Your task to perform on an android device: turn on improve location accuracy Image 0: 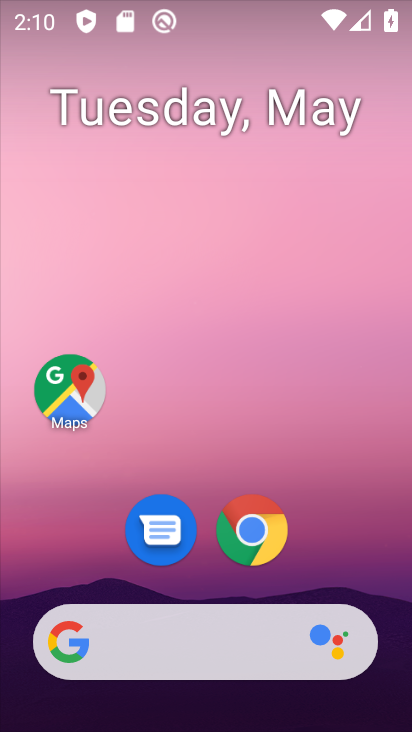
Step 0: drag from (201, 559) to (201, 193)
Your task to perform on an android device: turn on improve location accuracy Image 1: 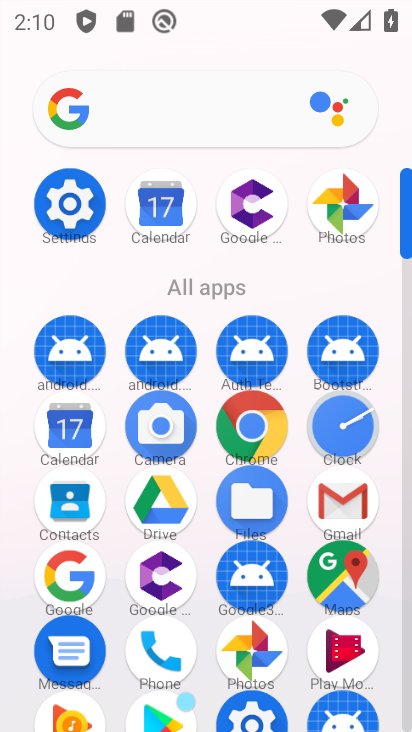
Step 1: click (59, 198)
Your task to perform on an android device: turn on improve location accuracy Image 2: 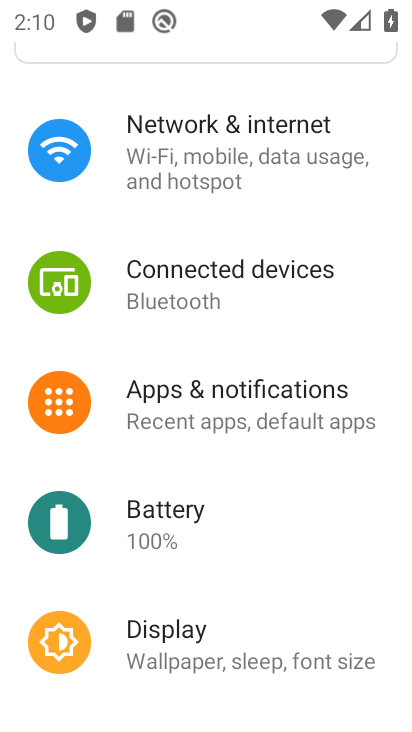
Step 2: drag from (244, 640) to (269, 366)
Your task to perform on an android device: turn on improve location accuracy Image 3: 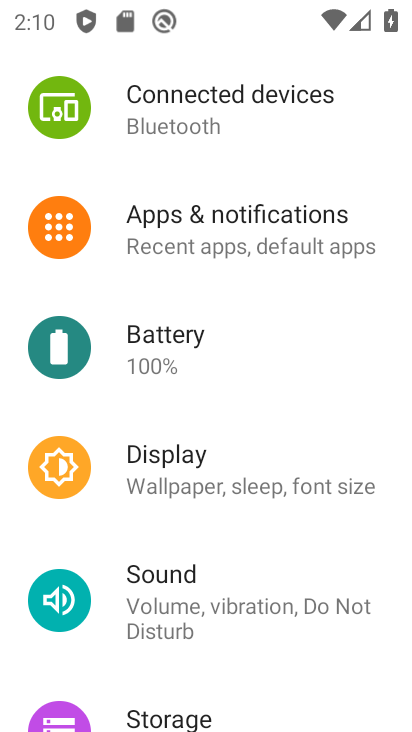
Step 3: drag from (198, 624) to (262, 396)
Your task to perform on an android device: turn on improve location accuracy Image 4: 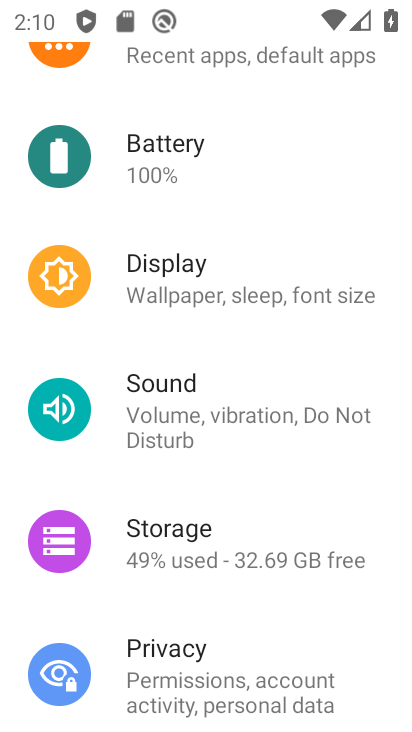
Step 4: drag from (251, 579) to (285, 343)
Your task to perform on an android device: turn on improve location accuracy Image 5: 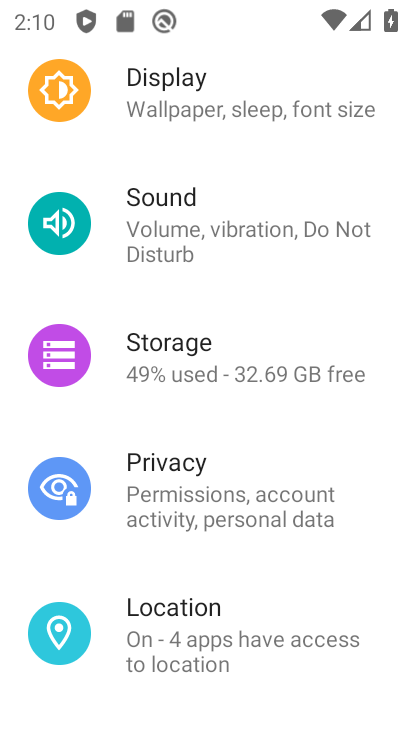
Step 5: click (199, 613)
Your task to perform on an android device: turn on improve location accuracy Image 6: 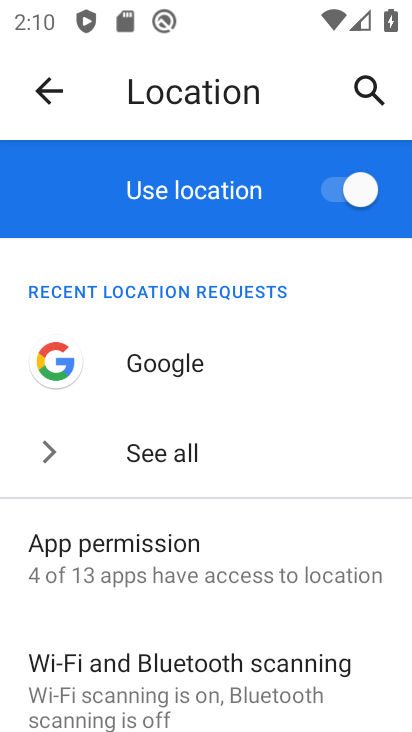
Step 6: drag from (203, 621) to (273, 375)
Your task to perform on an android device: turn on improve location accuracy Image 7: 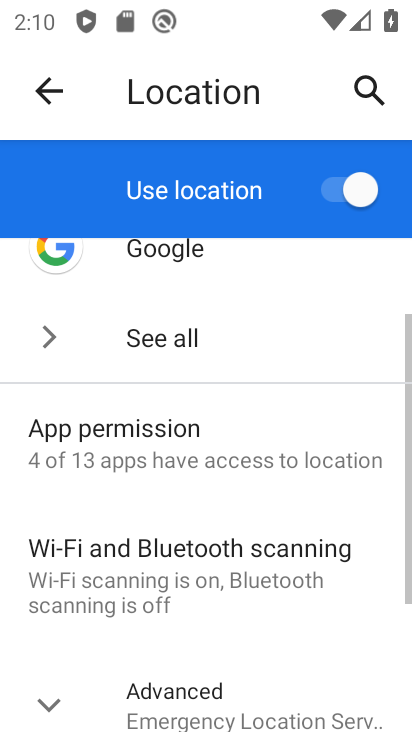
Step 7: drag from (216, 666) to (242, 377)
Your task to perform on an android device: turn on improve location accuracy Image 8: 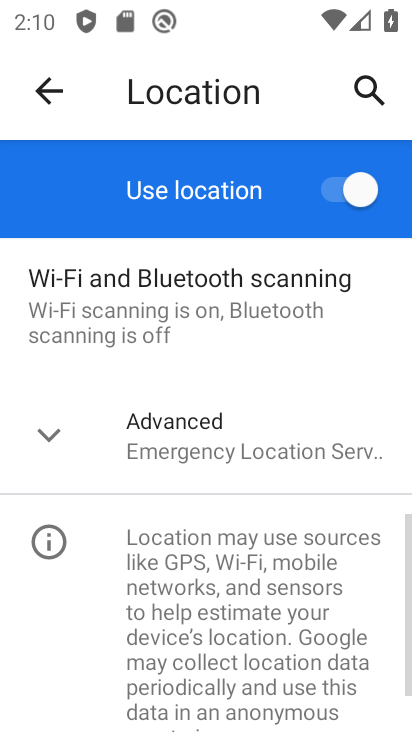
Step 8: drag from (206, 596) to (219, 474)
Your task to perform on an android device: turn on improve location accuracy Image 9: 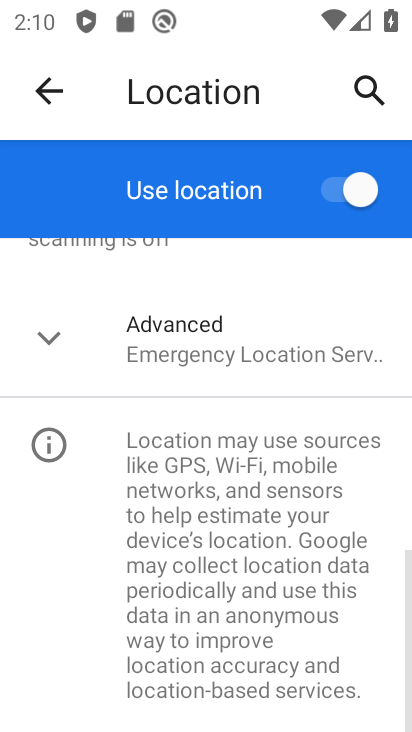
Step 9: click (208, 448)
Your task to perform on an android device: turn on improve location accuracy Image 10: 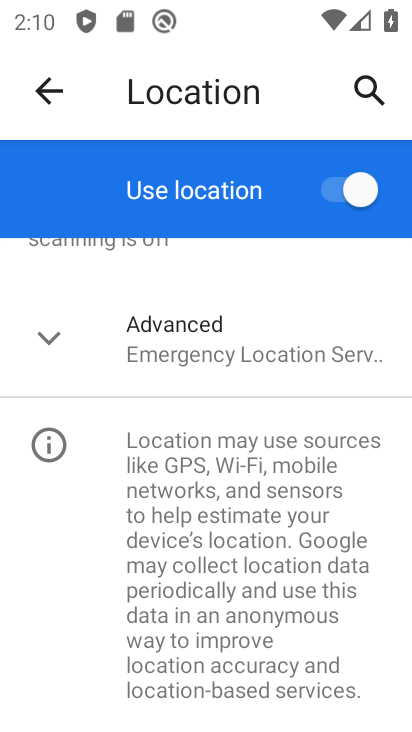
Step 10: click (200, 362)
Your task to perform on an android device: turn on improve location accuracy Image 11: 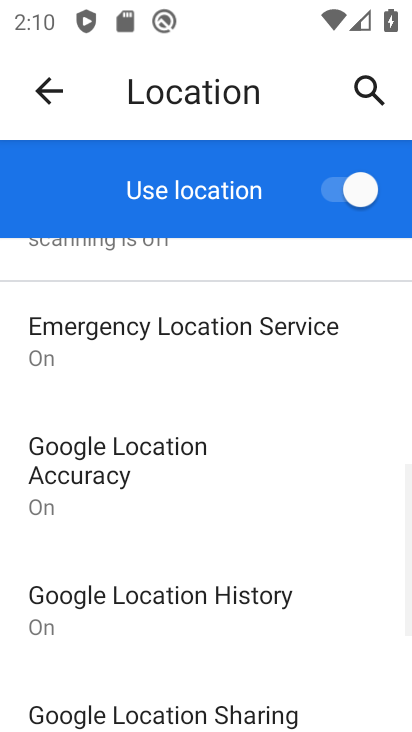
Step 11: drag from (227, 632) to (257, 483)
Your task to perform on an android device: turn on improve location accuracy Image 12: 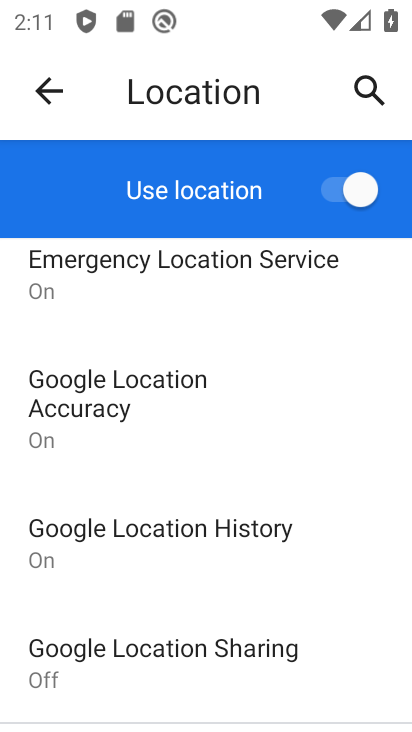
Step 12: click (191, 414)
Your task to perform on an android device: turn on improve location accuracy Image 13: 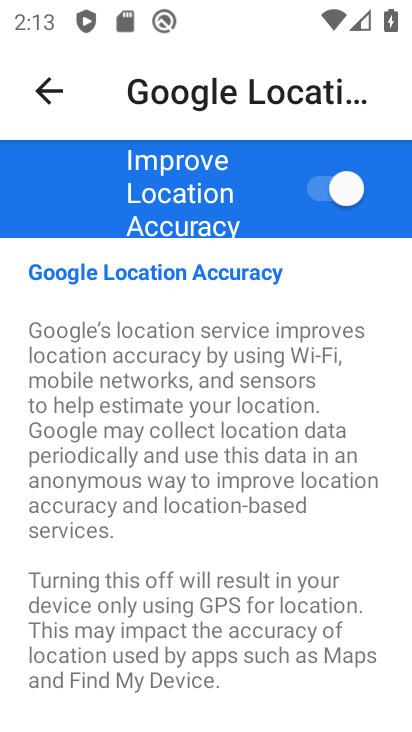
Step 13: task complete